Your task to perform on an android device: Go to internet settings Image 0: 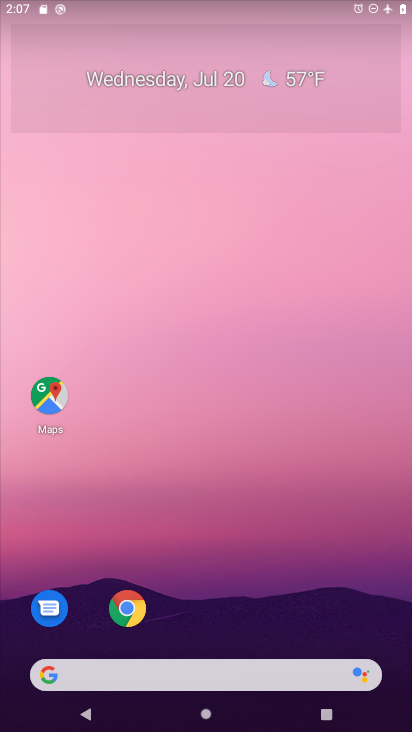
Step 0: drag from (270, 696) to (215, 156)
Your task to perform on an android device: Go to internet settings Image 1: 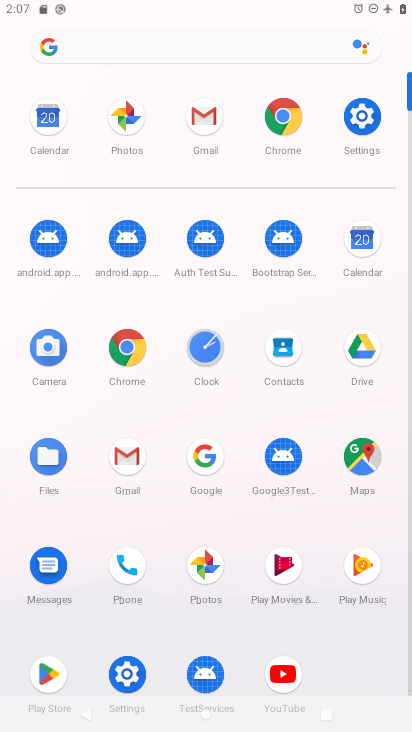
Step 1: click (365, 119)
Your task to perform on an android device: Go to internet settings Image 2: 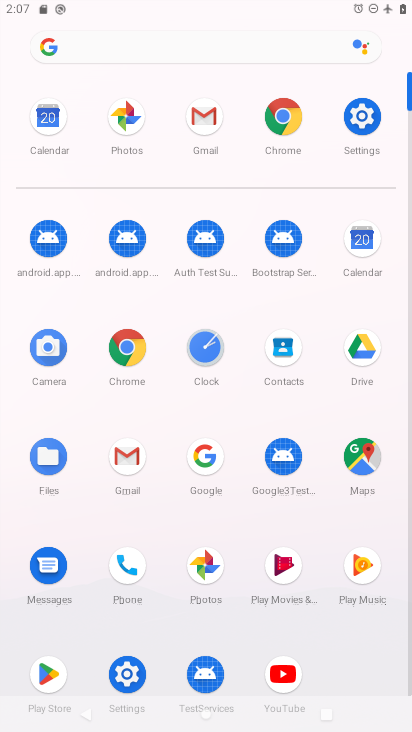
Step 2: click (365, 119)
Your task to perform on an android device: Go to internet settings Image 3: 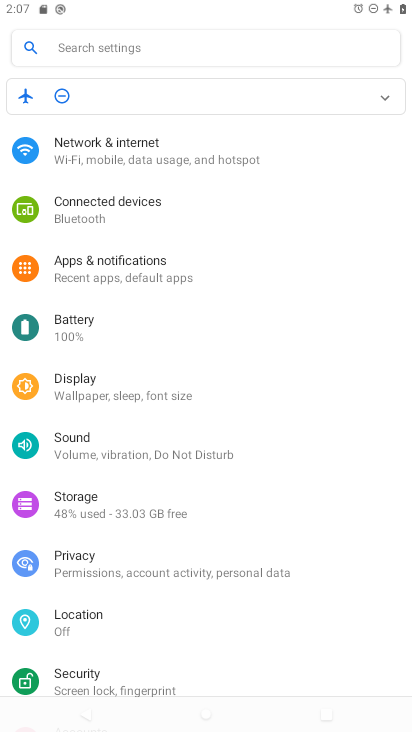
Step 3: click (228, 160)
Your task to perform on an android device: Go to internet settings Image 4: 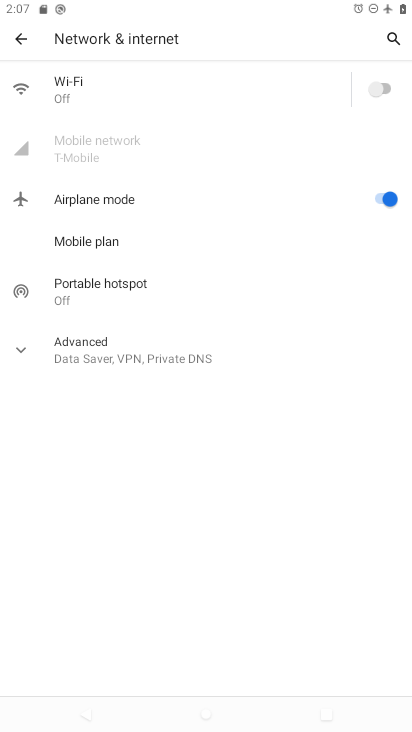
Step 4: task complete